Your task to perform on an android device: set default search engine in the chrome app Image 0: 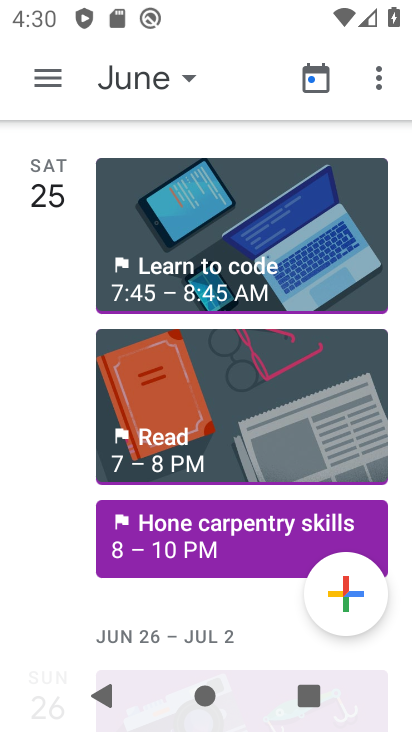
Step 0: press home button
Your task to perform on an android device: set default search engine in the chrome app Image 1: 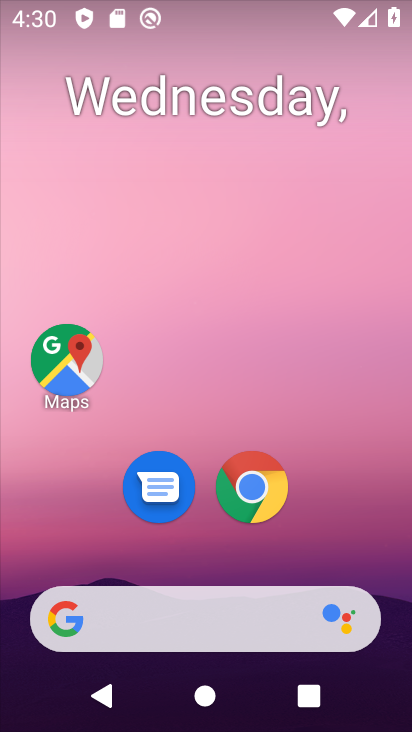
Step 1: click (234, 498)
Your task to perform on an android device: set default search engine in the chrome app Image 2: 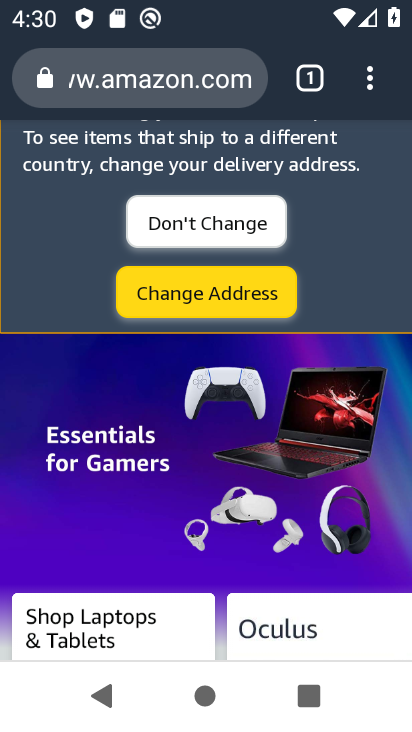
Step 2: drag from (331, 173) to (352, 597)
Your task to perform on an android device: set default search engine in the chrome app Image 3: 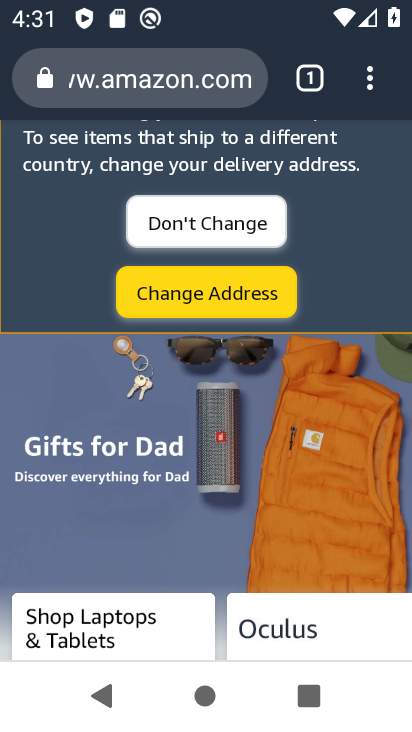
Step 3: click (361, 76)
Your task to perform on an android device: set default search engine in the chrome app Image 4: 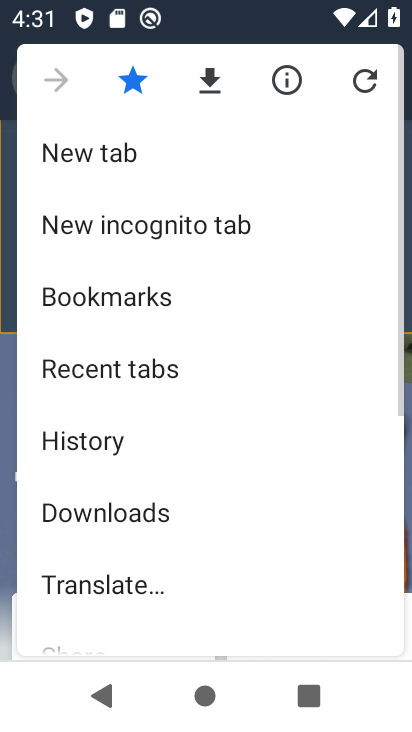
Step 4: drag from (192, 561) to (201, 170)
Your task to perform on an android device: set default search engine in the chrome app Image 5: 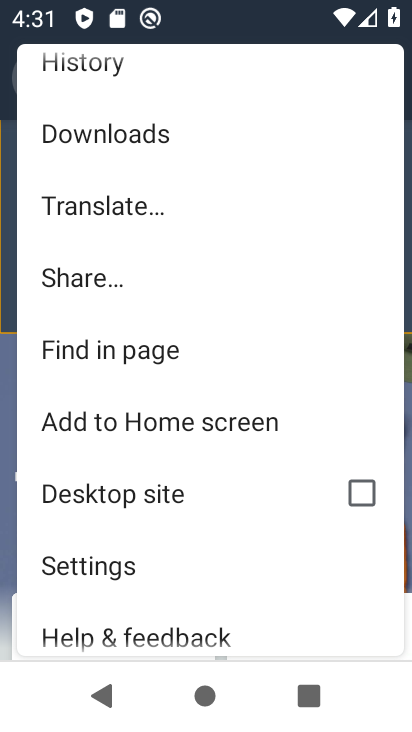
Step 5: click (149, 552)
Your task to perform on an android device: set default search engine in the chrome app Image 6: 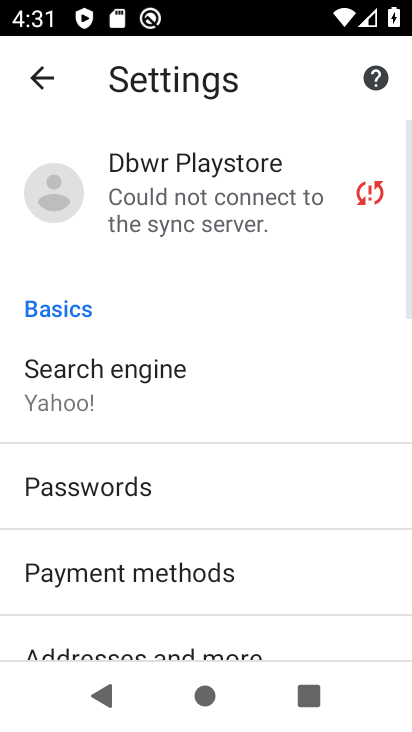
Step 6: click (133, 405)
Your task to perform on an android device: set default search engine in the chrome app Image 7: 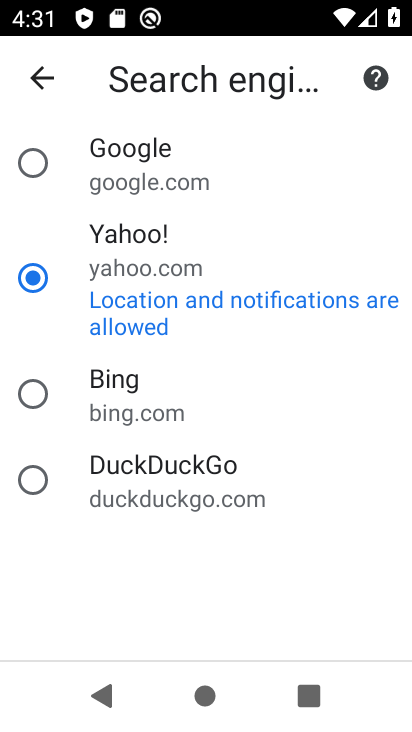
Step 7: click (52, 172)
Your task to perform on an android device: set default search engine in the chrome app Image 8: 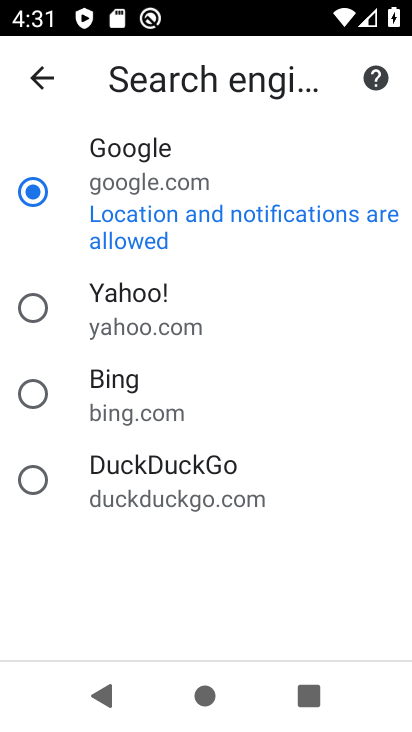
Step 8: task complete